Your task to perform on an android device: search for starred emails in the gmail app Image 0: 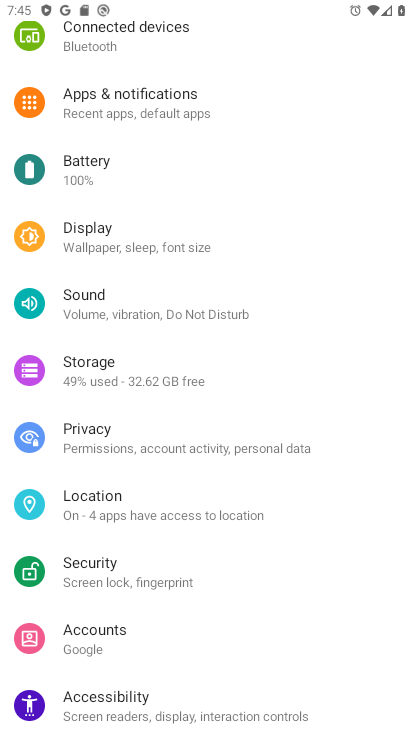
Step 0: press home button
Your task to perform on an android device: search for starred emails in the gmail app Image 1: 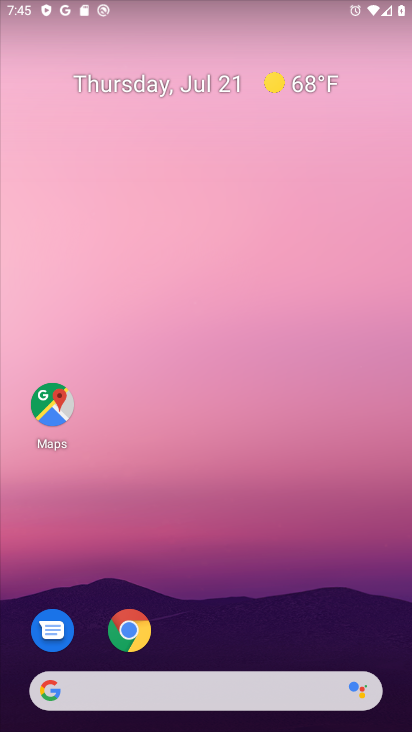
Step 1: drag from (217, 601) to (226, 122)
Your task to perform on an android device: search for starred emails in the gmail app Image 2: 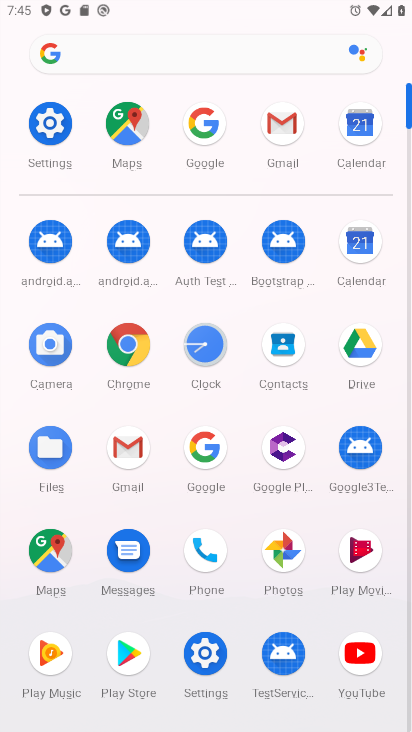
Step 2: click (277, 122)
Your task to perform on an android device: search for starred emails in the gmail app Image 3: 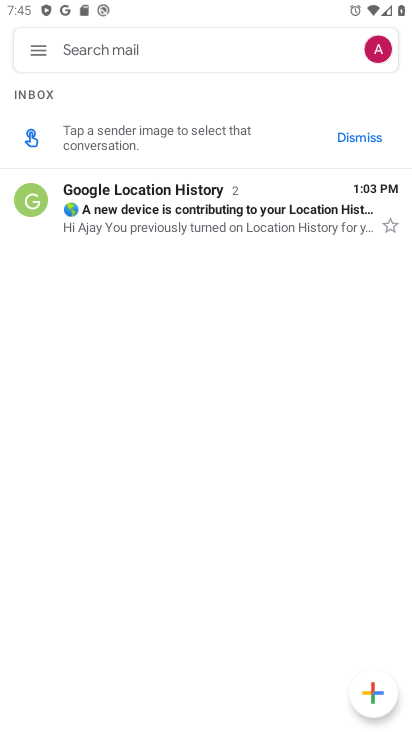
Step 3: click (44, 56)
Your task to perform on an android device: search for starred emails in the gmail app Image 4: 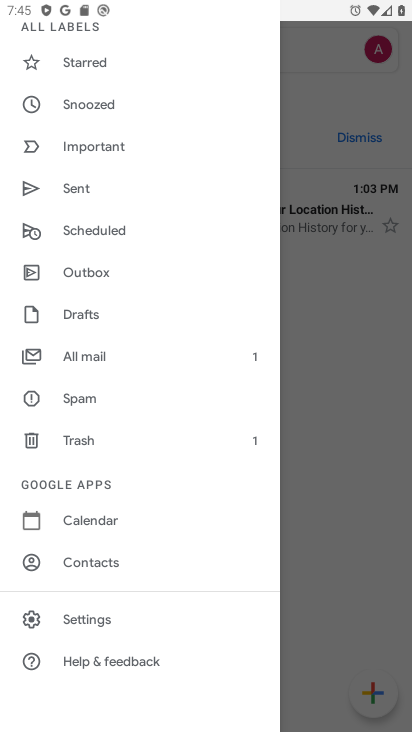
Step 4: click (84, 65)
Your task to perform on an android device: search for starred emails in the gmail app Image 5: 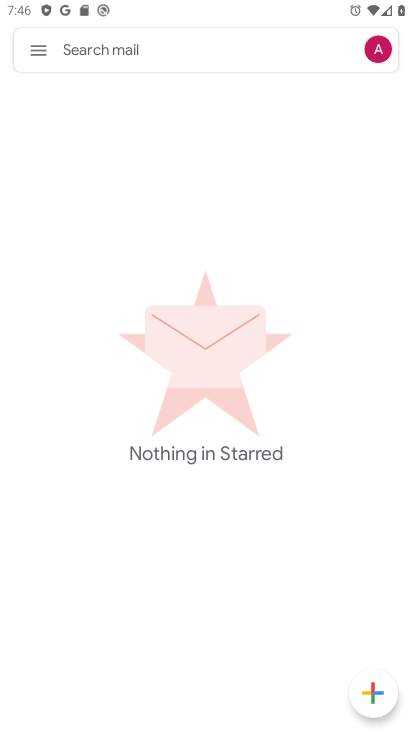
Step 5: task complete